Your task to perform on an android device: turn off wifi Image 0: 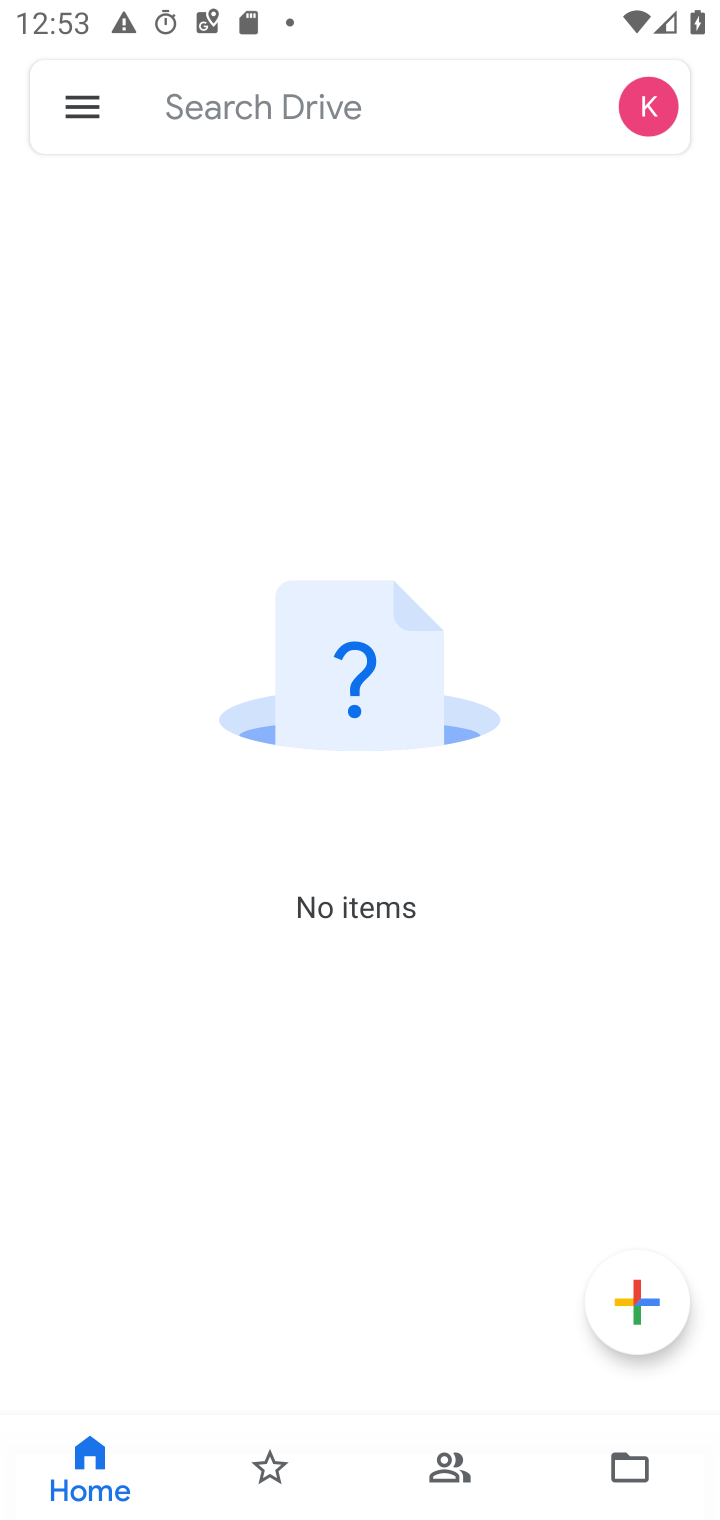
Step 0: press home button
Your task to perform on an android device: turn off wifi Image 1: 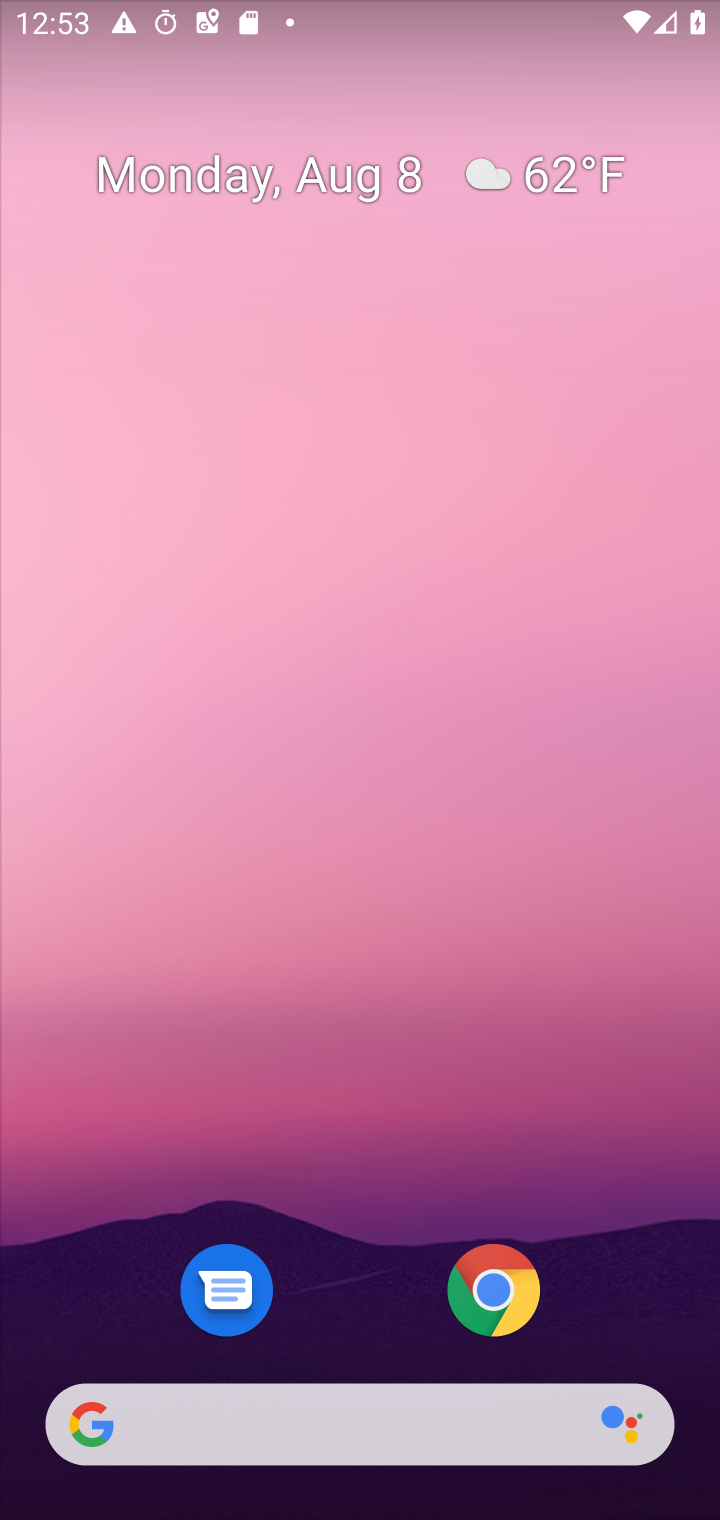
Step 1: drag from (443, 1157) to (616, 440)
Your task to perform on an android device: turn off wifi Image 2: 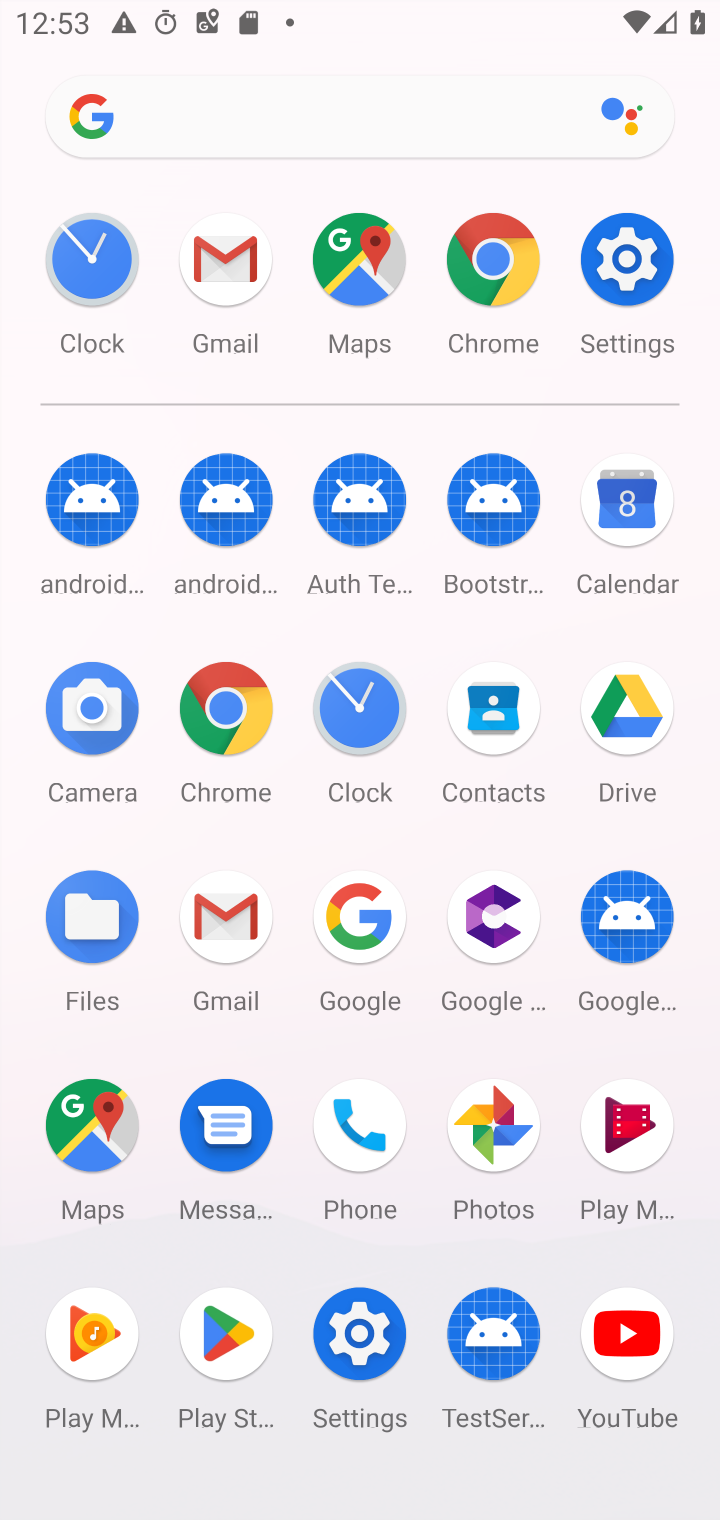
Step 2: click (342, 1319)
Your task to perform on an android device: turn off wifi Image 3: 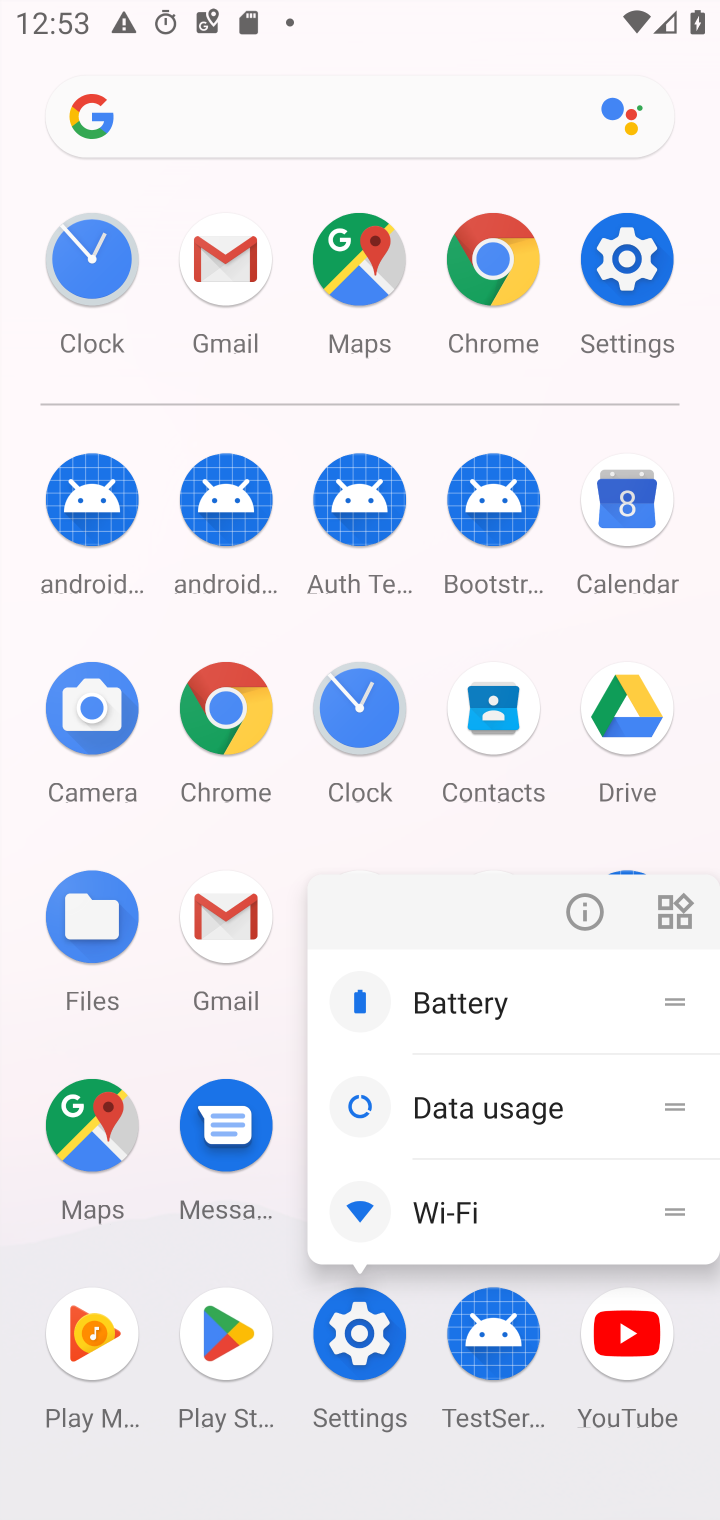
Step 3: click (330, 1379)
Your task to perform on an android device: turn off wifi Image 4: 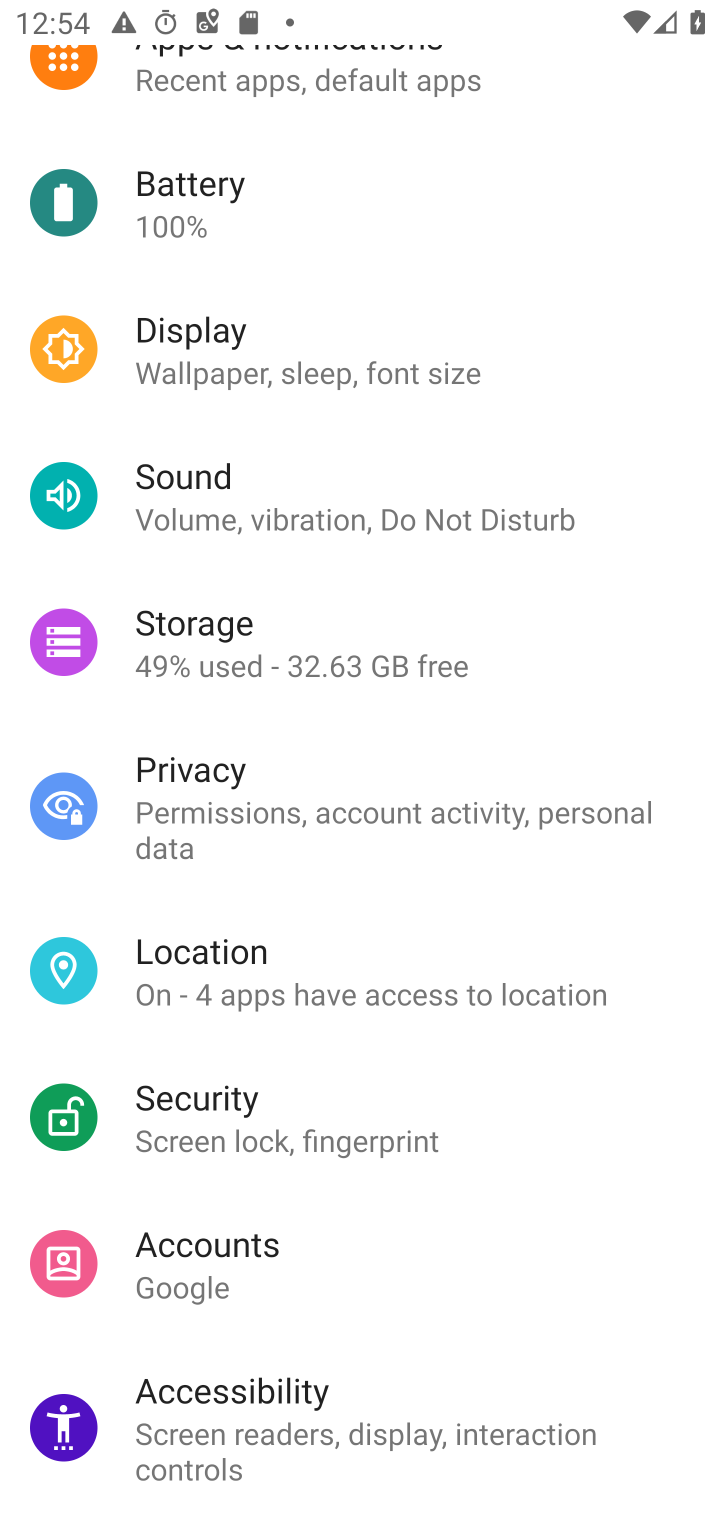
Step 4: drag from (349, 355) to (352, 837)
Your task to perform on an android device: turn off wifi Image 5: 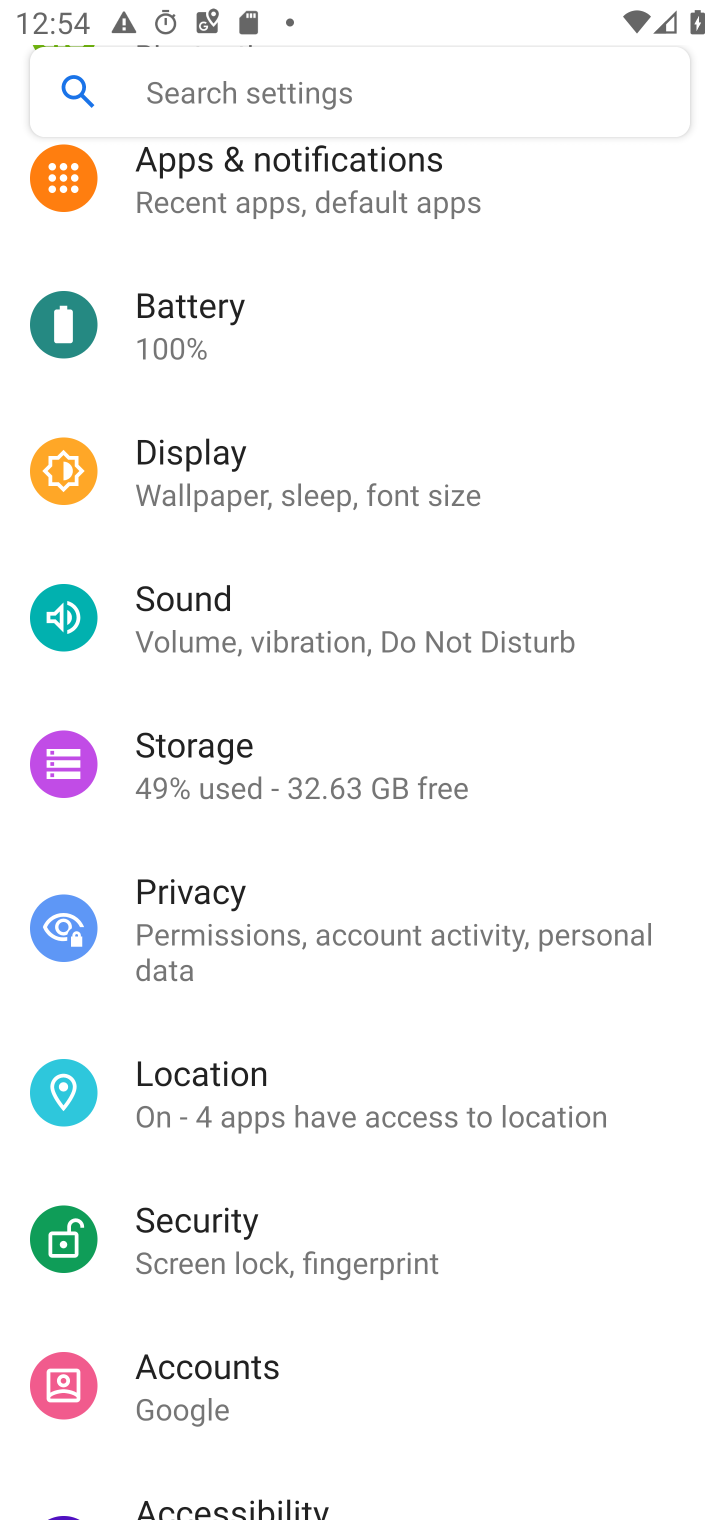
Step 5: drag from (293, 610) to (339, 1120)
Your task to perform on an android device: turn off wifi Image 6: 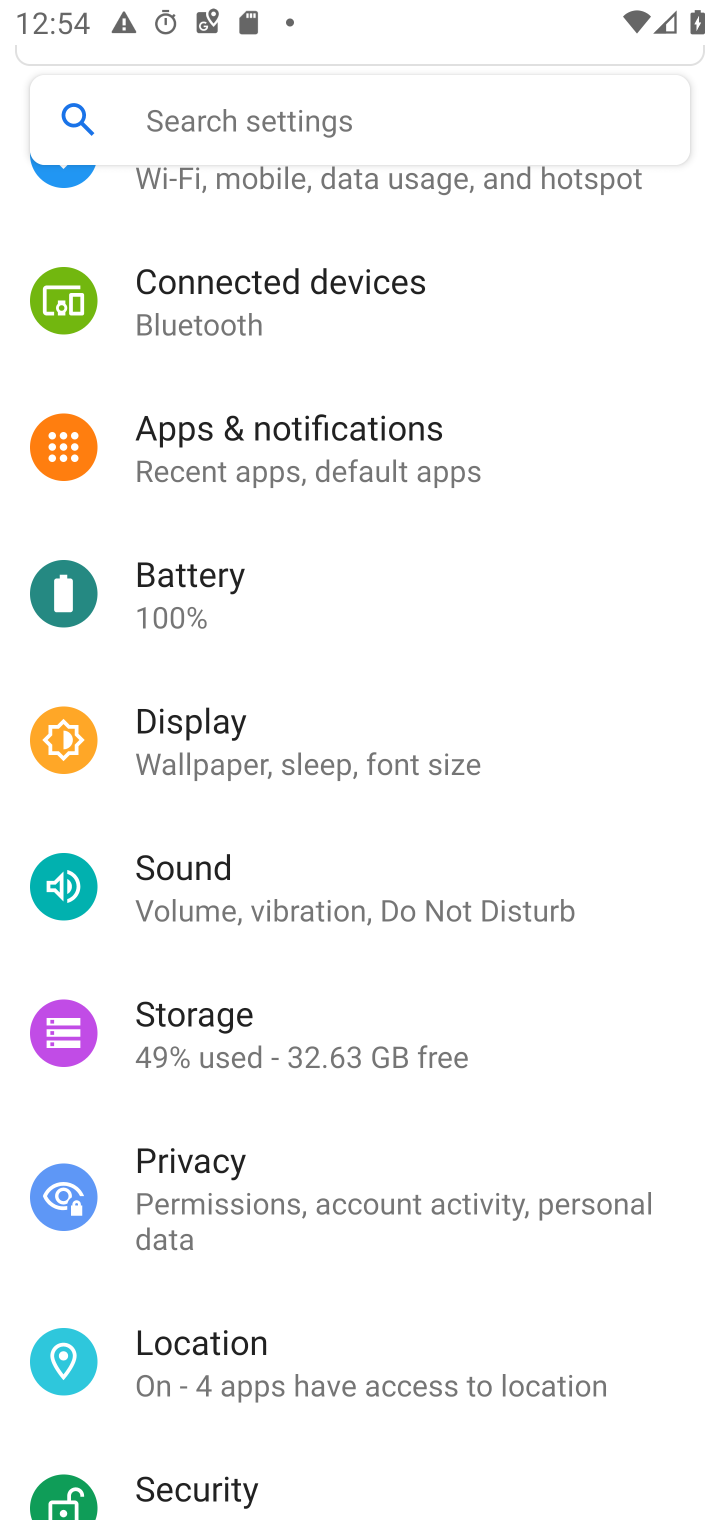
Step 6: drag from (389, 390) to (407, 970)
Your task to perform on an android device: turn off wifi Image 7: 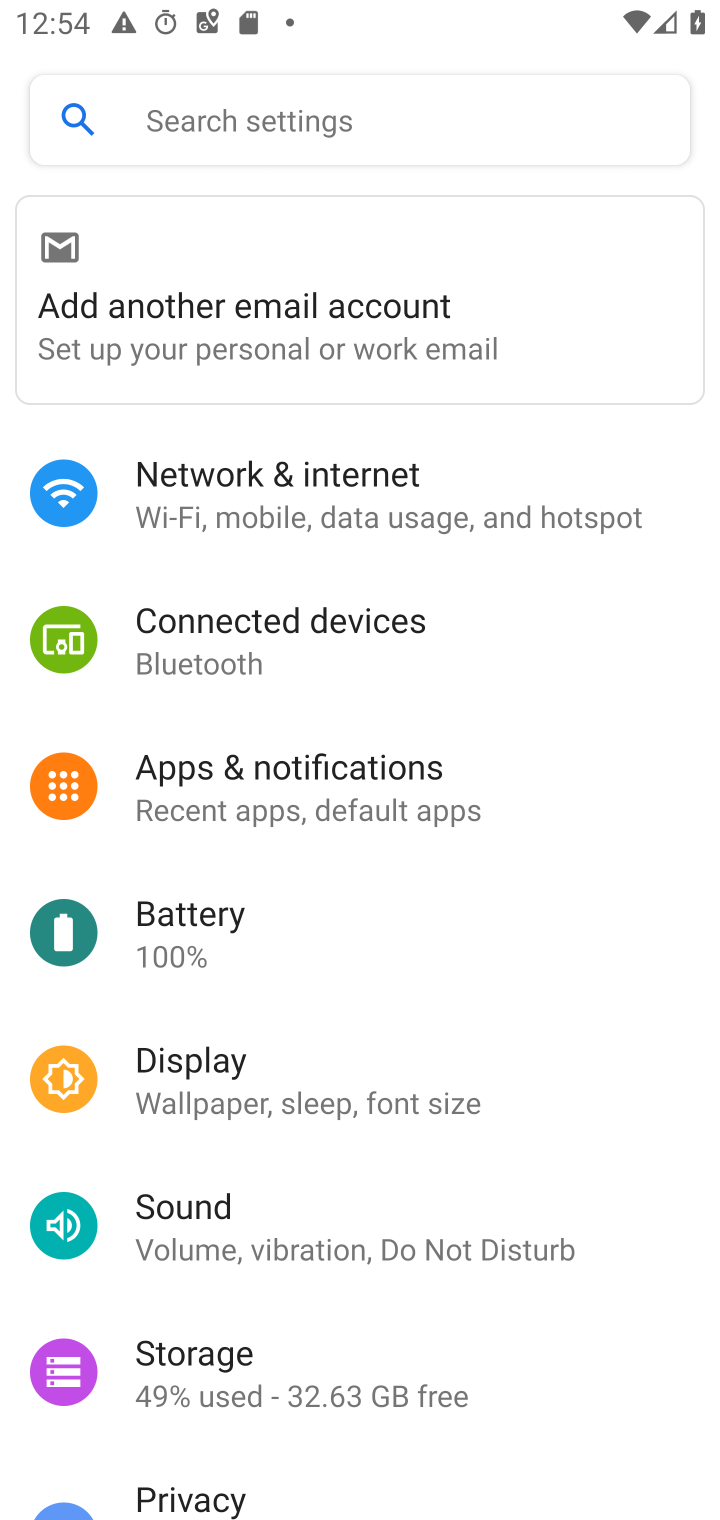
Step 7: click (386, 520)
Your task to perform on an android device: turn off wifi Image 8: 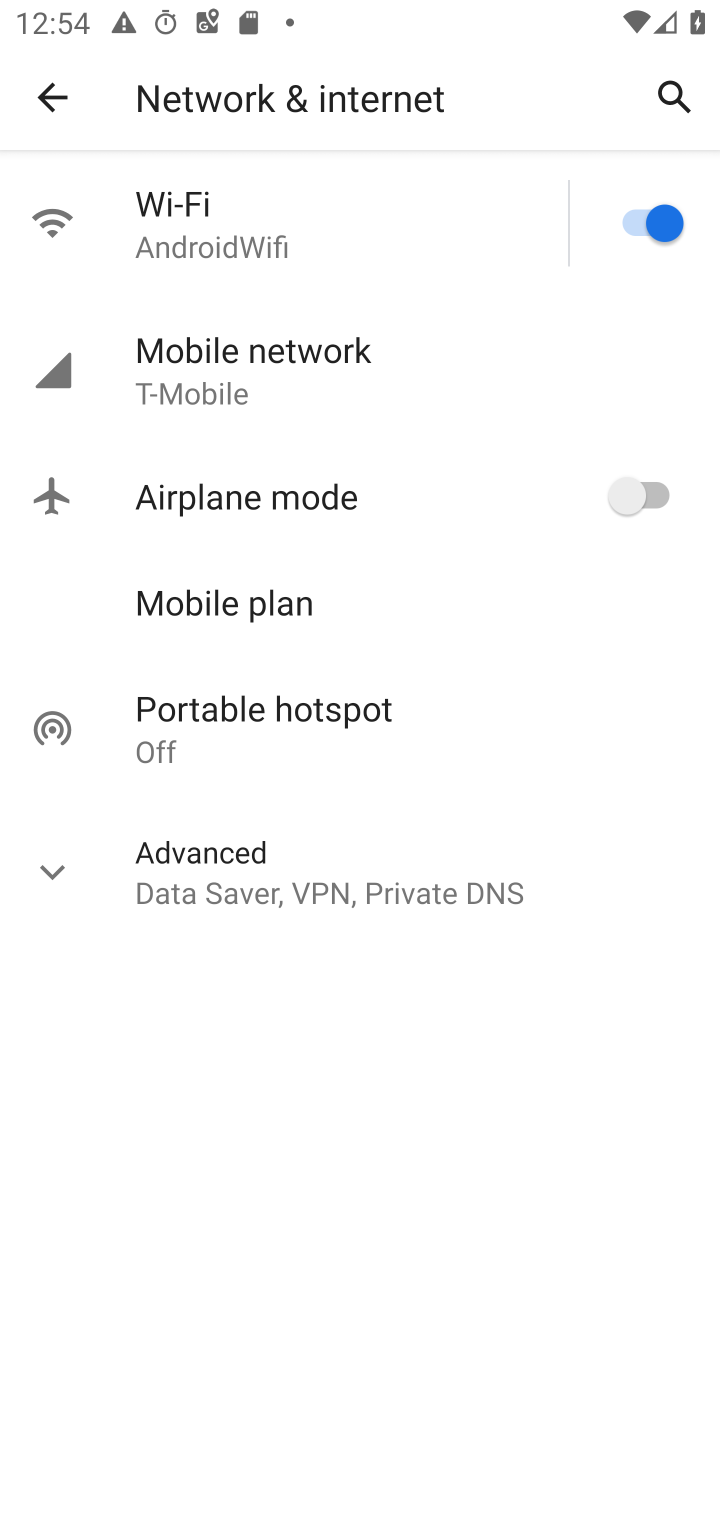
Step 8: click (617, 219)
Your task to perform on an android device: turn off wifi Image 9: 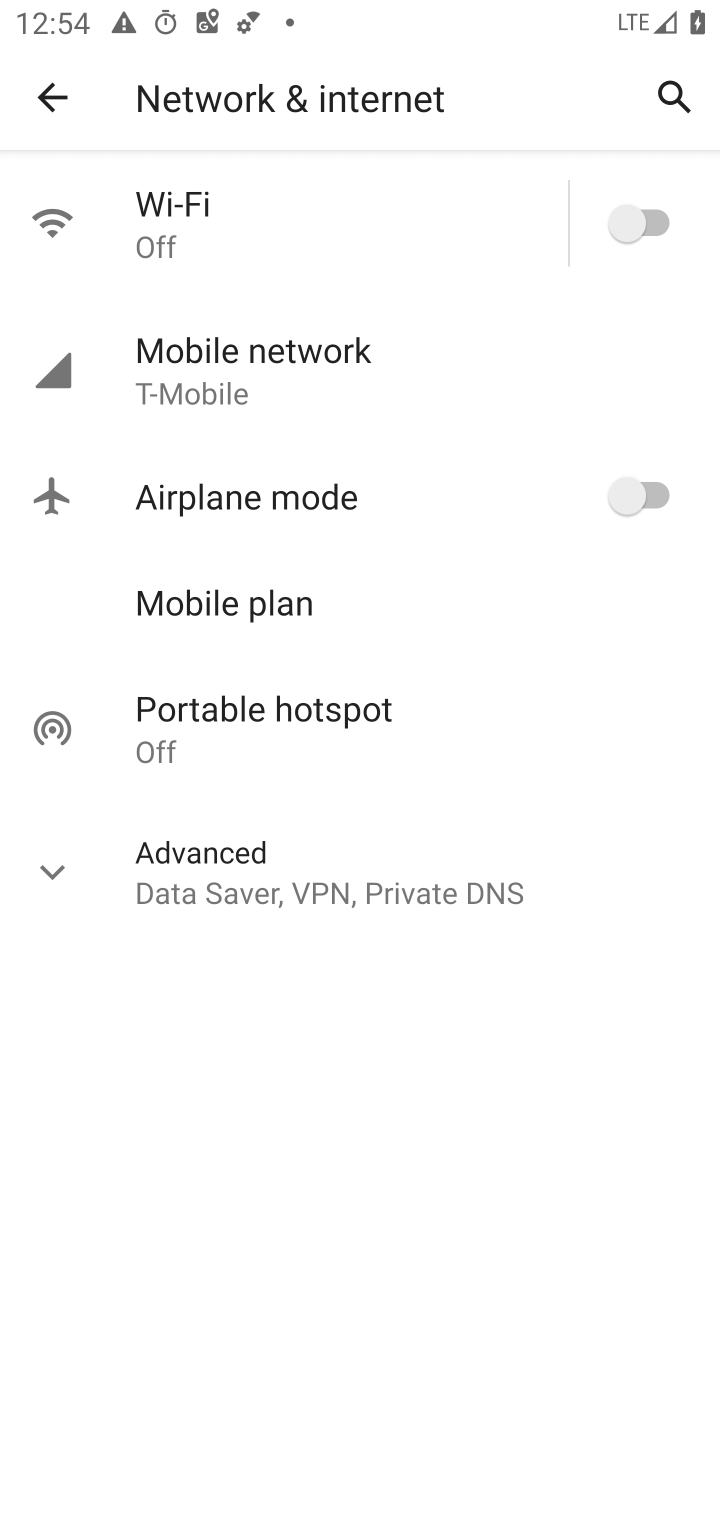
Step 9: task complete